Your task to perform on an android device: add a label to a message in the gmail app Image 0: 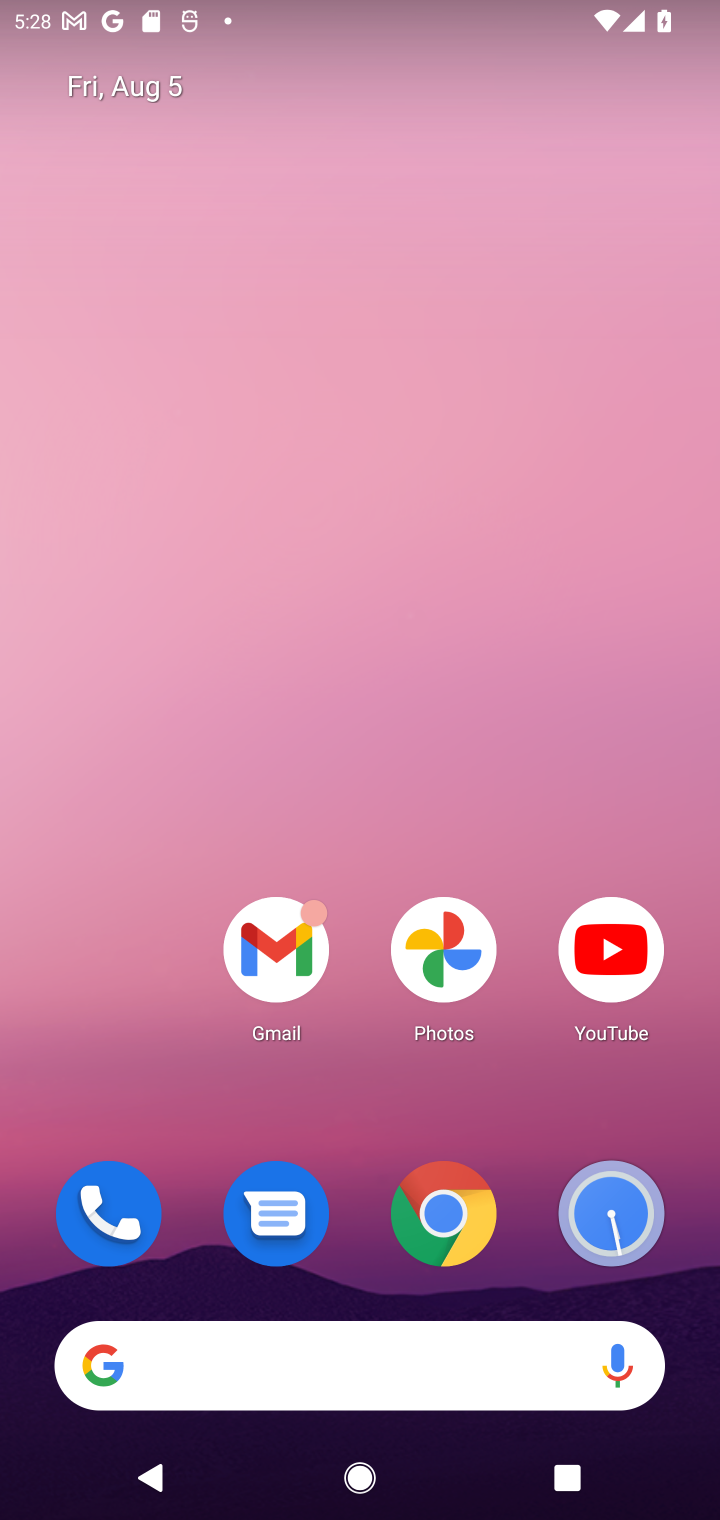
Step 0: click (287, 973)
Your task to perform on an android device: add a label to a message in the gmail app Image 1: 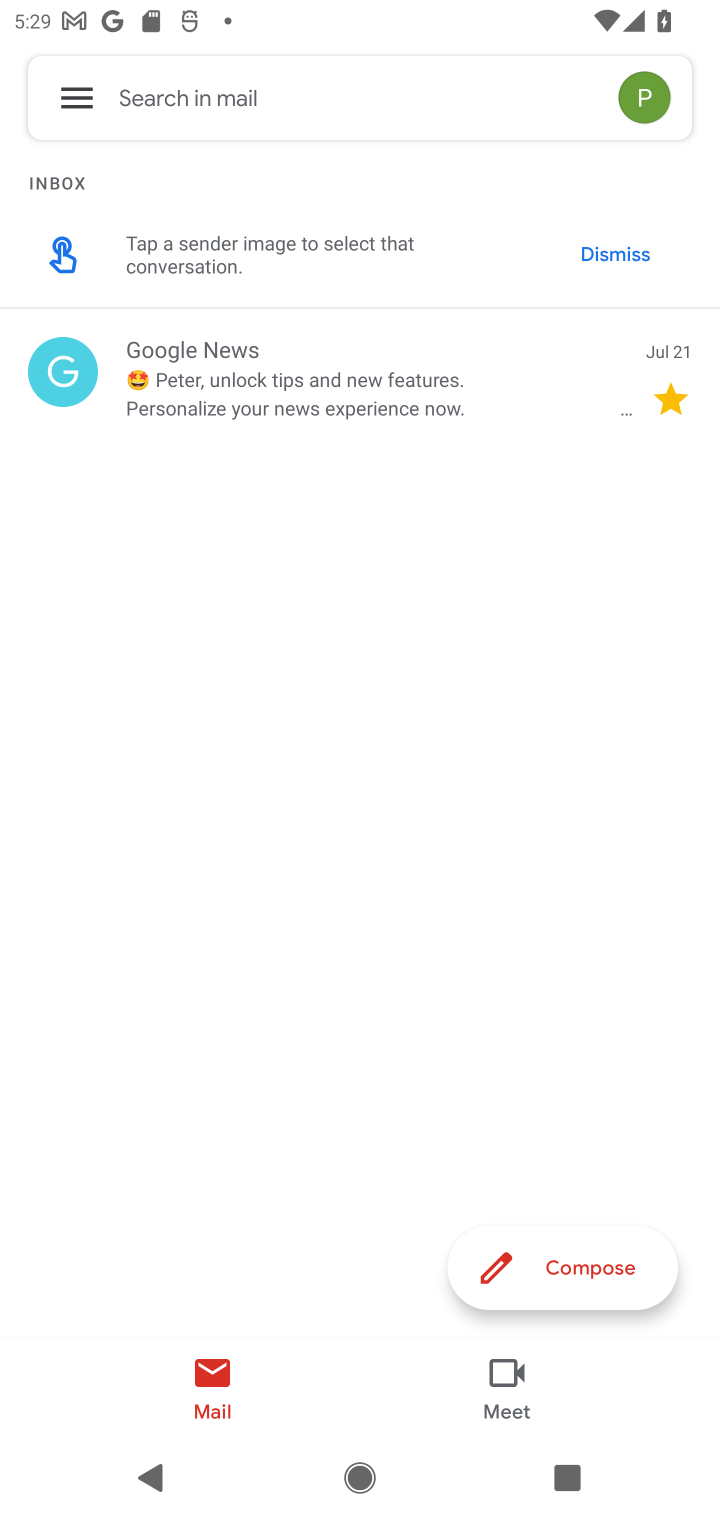
Step 1: click (80, 121)
Your task to perform on an android device: add a label to a message in the gmail app Image 2: 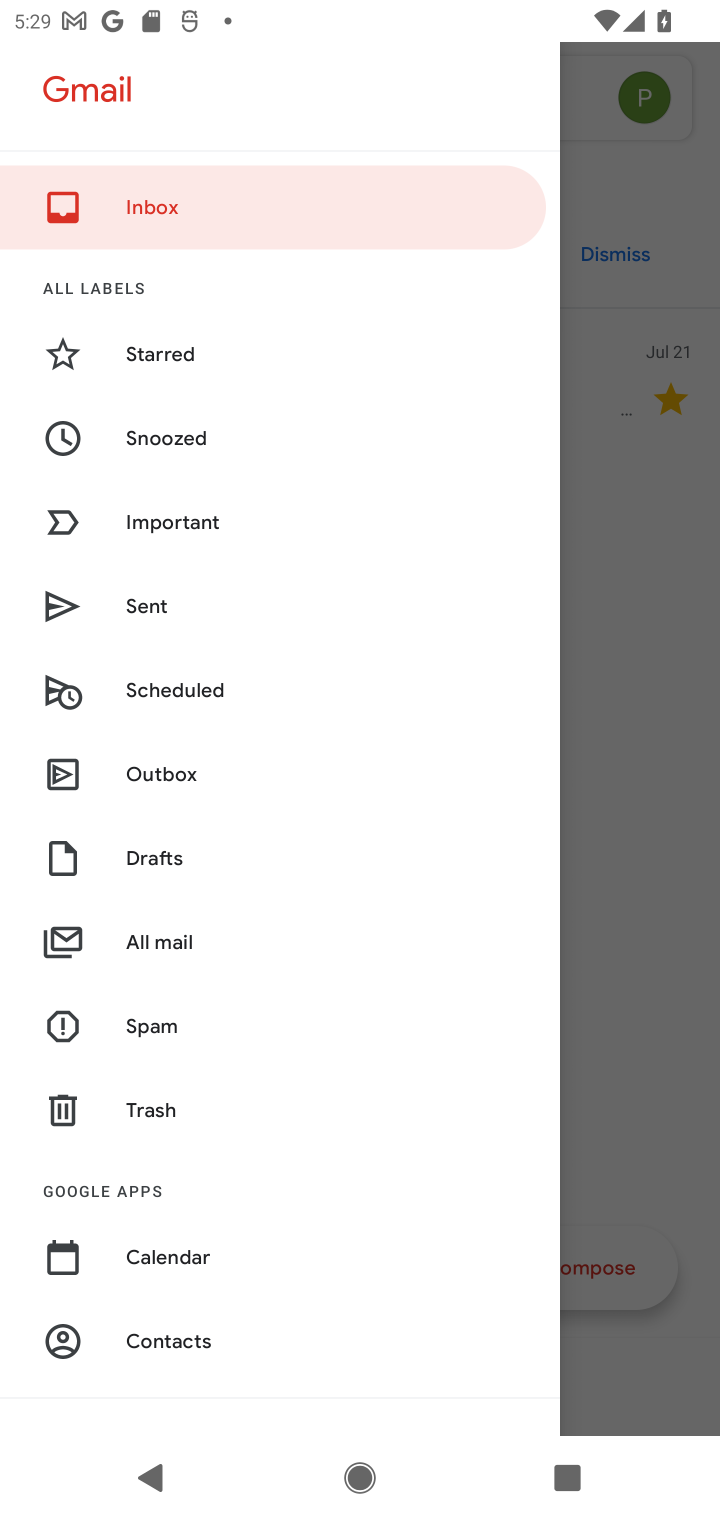
Step 2: task complete